Your task to perform on an android device: Open Reddit.com Image 0: 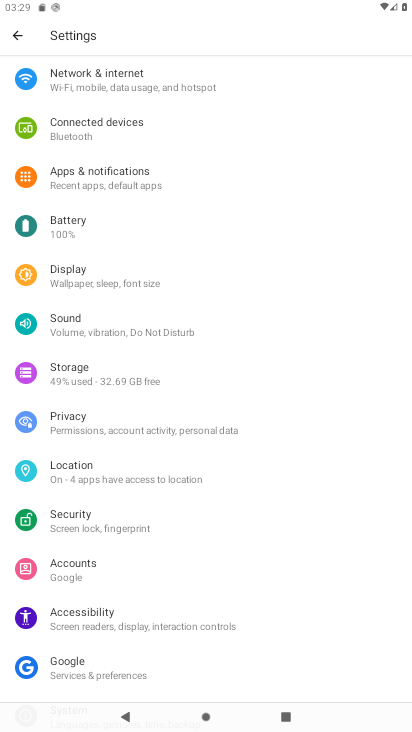
Step 0: press home button
Your task to perform on an android device: Open Reddit.com Image 1: 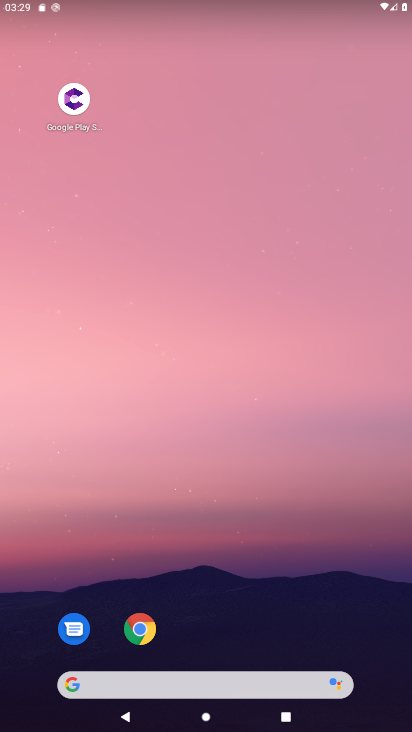
Step 1: click (139, 627)
Your task to perform on an android device: Open Reddit.com Image 2: 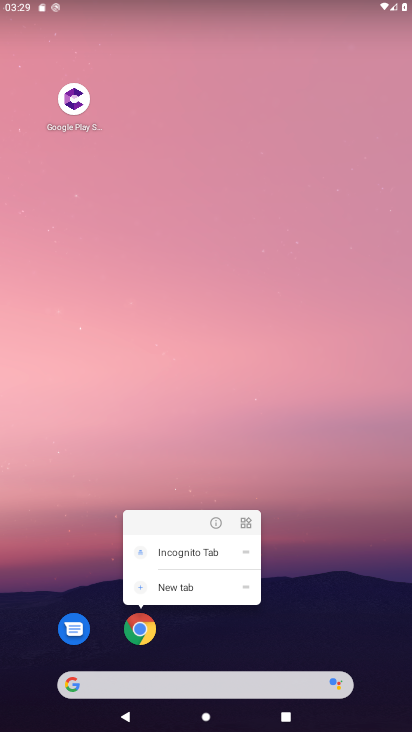
Step 2: click (147, 628)
Your task to perform on an android device: Open Reddit.com Image 3: 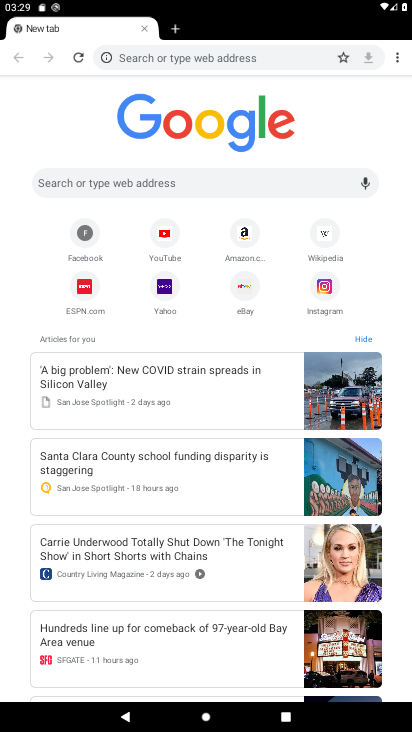
Step 3: click (143, 183)
Your task to perform on an android device: Open Reddit.com Image 4: 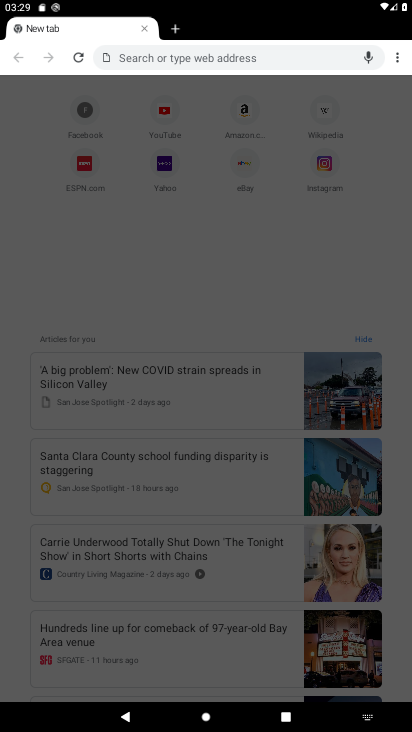
Step 4: type "reddit.com"
Your task to perform on an android device: Open Reddit.com Image 5: 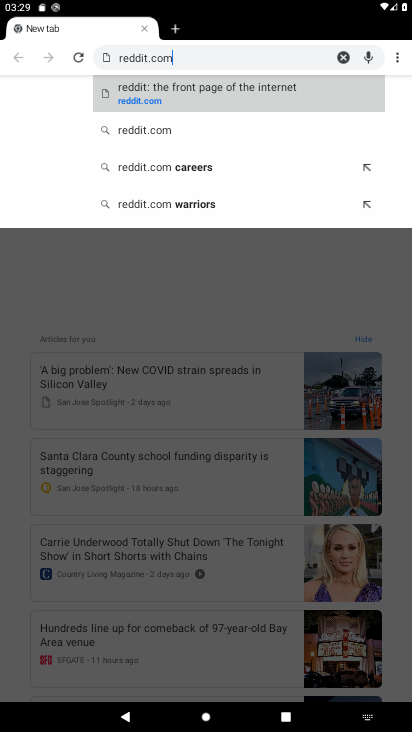
Step 5: click (138, 125)
Your task to perform on an android device: Open Reddit.com Image 6: 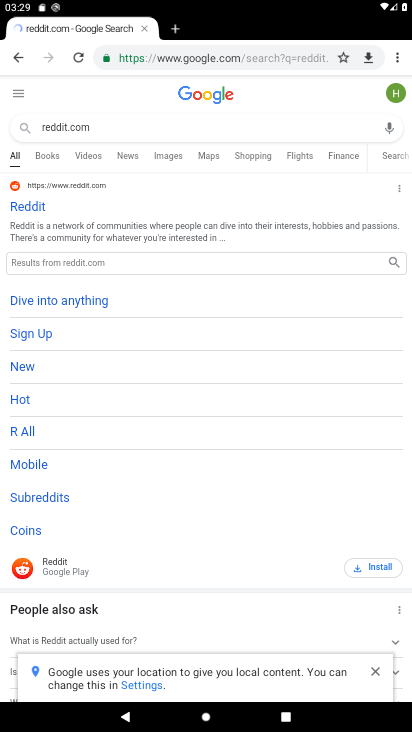
Step 6: click (20, 205)
Your task to perform on an android device: Open Reddit.com Image 7: 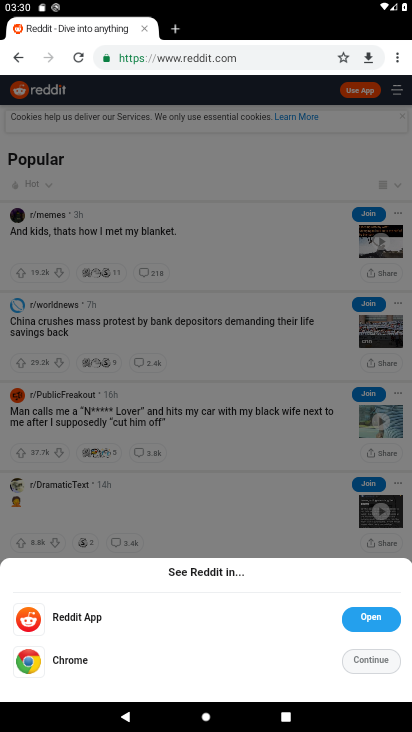
Step 7: task complete